Your task to perform on an android device: see sites visited before in the chrome app Image 0: 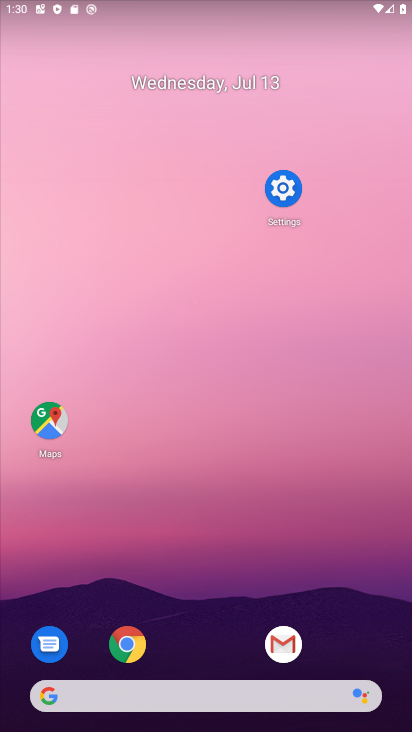
Step 0: press home button
Your task to perform on an android device: see sites visited before in the chrome app Image 1: 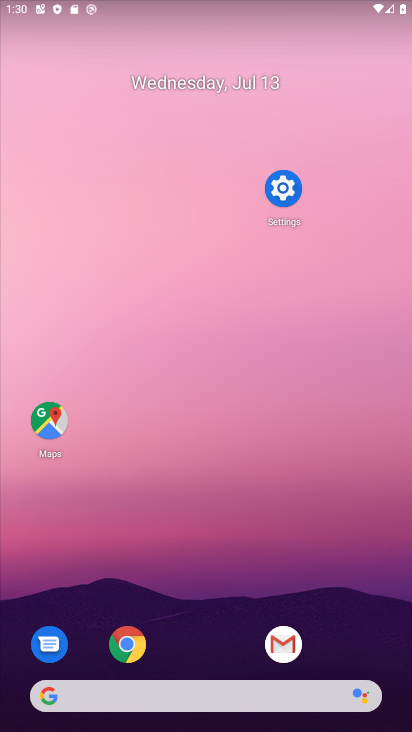
Step 1: click (116, 658)
Your task to perform on an android device: see sites visited before in the chrome app Image 2: 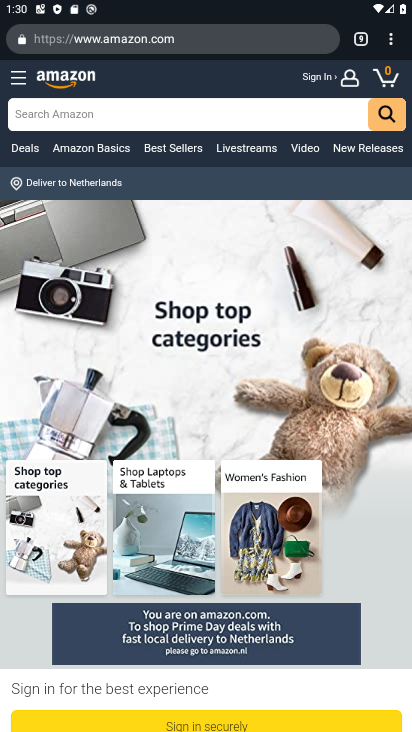
Step 2: click (381, 41)
Your task to perform on an android device: see sites visited before in the chrome app Image 3: 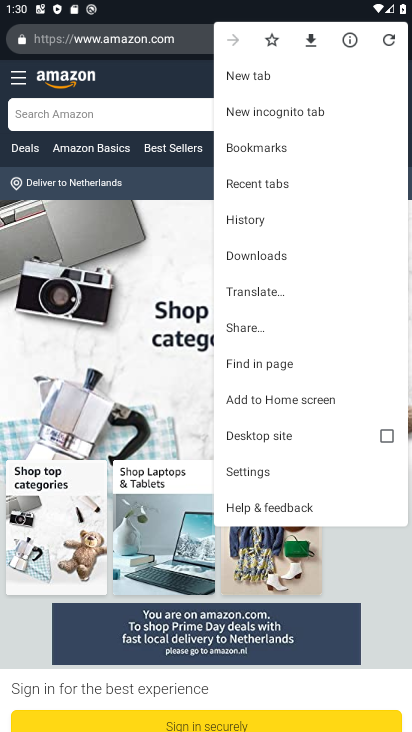
Step 3: click (273, 467)
Your task to perform on an android device: see sites visited before in the chrome app Image 4: 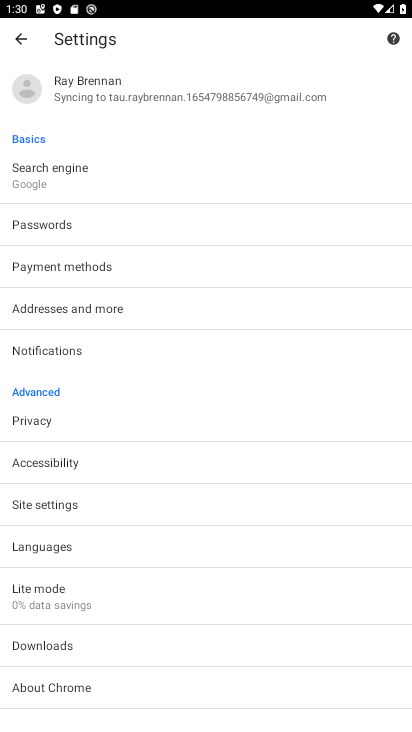
Step 4: click (72, 507)
Your task to perform on an android device: see sites visited before in the chrome app Image 5: 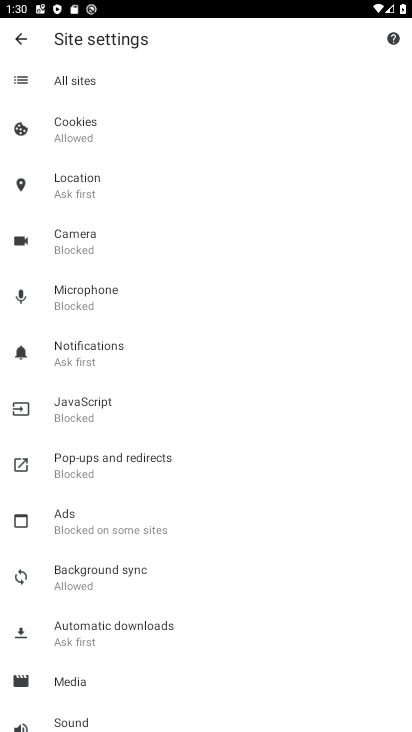
Step 5: click (71, 76)
Your task to perform on an android device: see sites visited before in the chrome app Image 6: 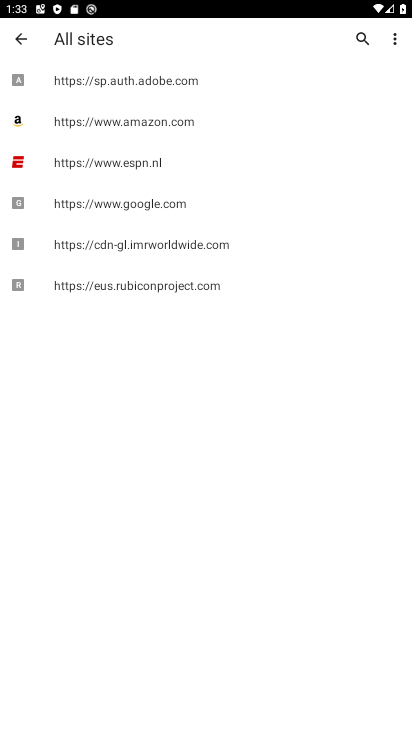
Step 6: task complete